Your task to perform on an android device: turn on showing notifications on the lock screen Image 0: 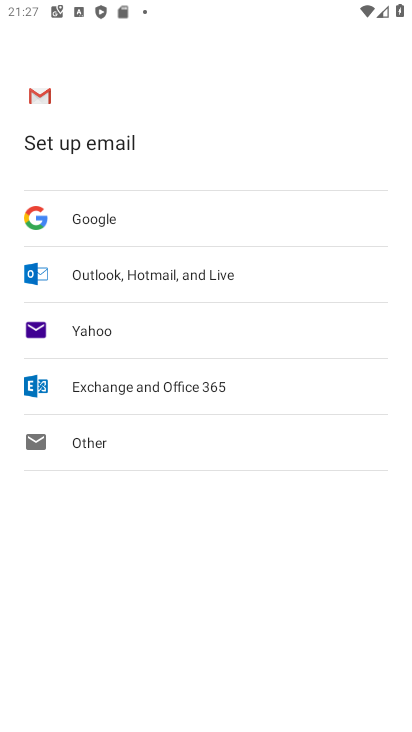
Step 0: press home button
Your task to perform on an android device: turn on showing notifications on the lock screen Image 1: 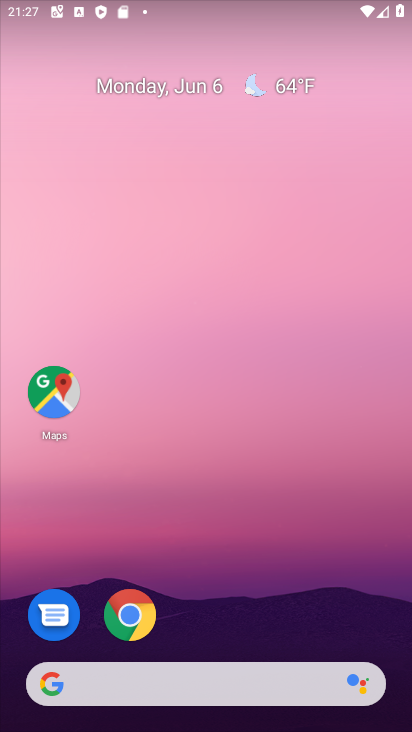
Step 1: drag from (399, 691) to (369, 91)
Your task to perform on an android device: turn on showing notifications on the lock screen Image 2: 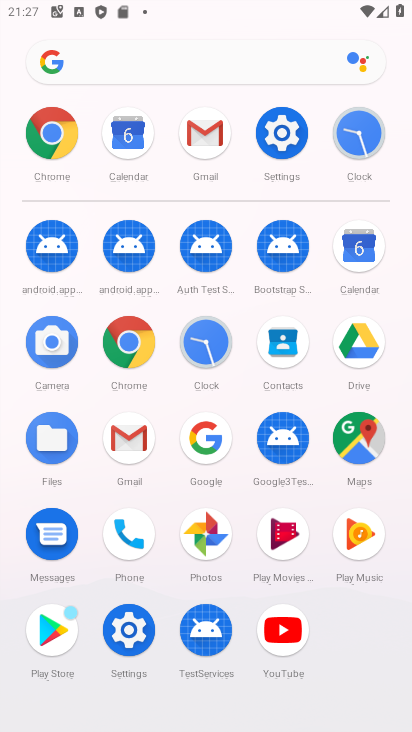
Step 2: click (284, 143)
Your task to perform on an android device: turn on showing notifications on the lock screen Image 3: 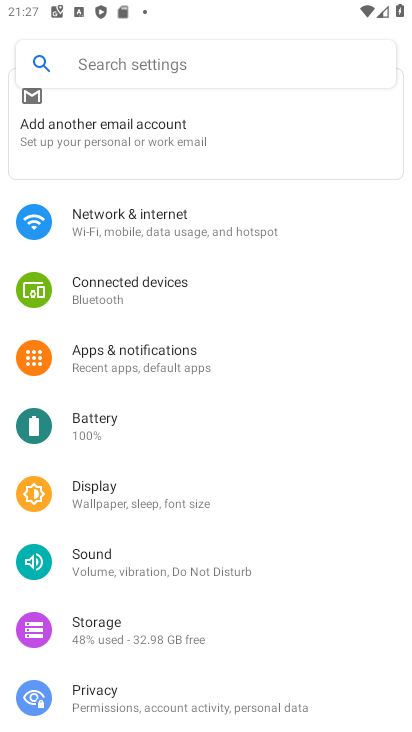
Step 3: click (159, 354)
Your task to perform on an android device: turn on showing notifications on the lock screen Image 4: 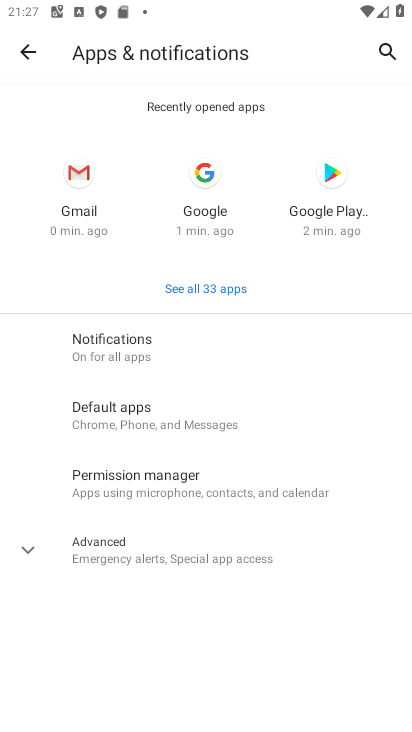
Step 4: click (103, 354)
Your task to perform on an android device: turn on showing notifications on the lock screen Image 5: 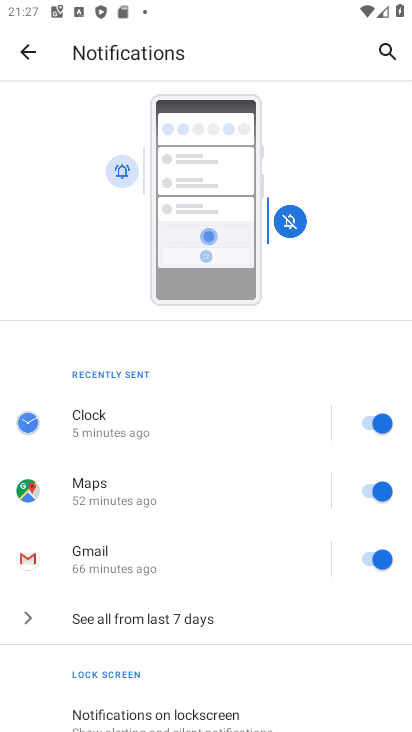
Step 5: click (211, 702)
Your task to perform on an android device: turn on showing notifications on the lock screen Image 6: 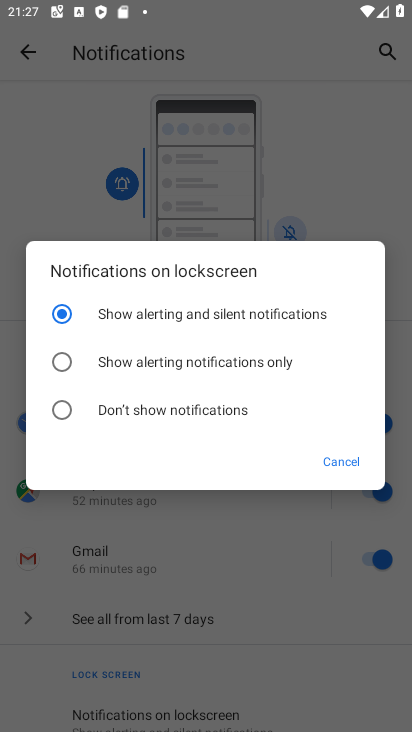
Step 6: task complete